Your task to perform on an android device: Open Chrome and go to the settings page Image 0: 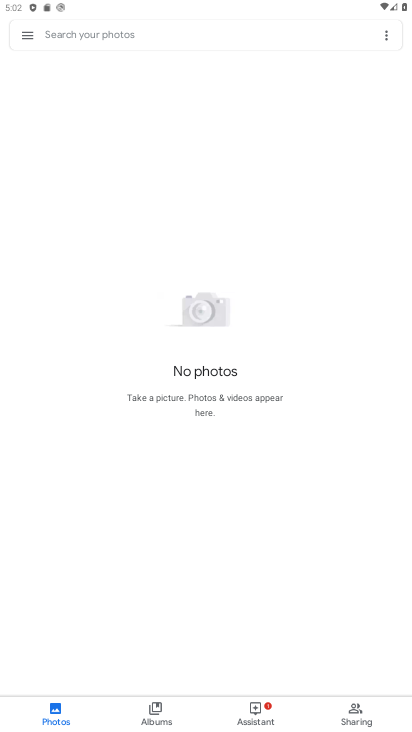
Step 0: task complete